Your task to perform on an android device: open app "Spotify: Music and Podcasts" (install if not already installed) Image 0: 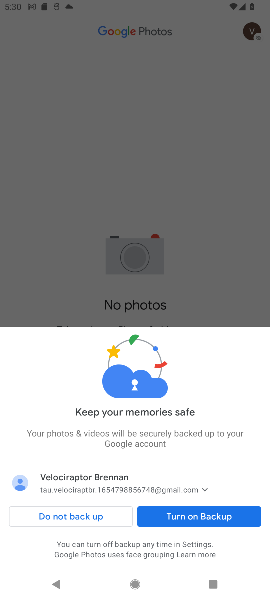
Step 0: press home button
Your task to perform on an android device: open app "Spotify: Music and Podcasts" (install if not already installed) Image 1: 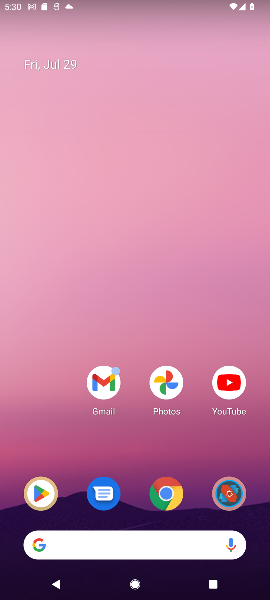
Step 1: drag from (161, 531) to (151, 63)
Your task to perform on an android device: open app "Spotify: Music and Podcasts" (install if not already installed) Image 2: 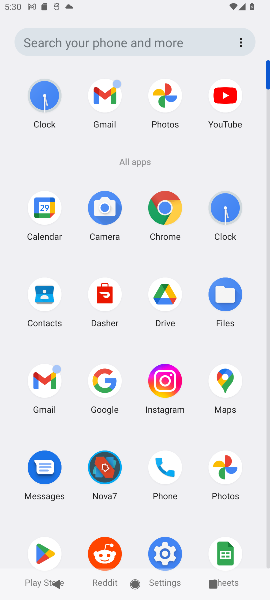
Step 2: click (45, 551)
Your task to perform on an android device: open app "Spotify: Music and Podcasts" (install if not already installed) Image 3: 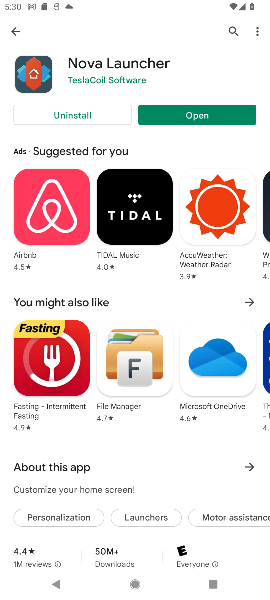
Step 3: click (231, 26)
Your task to perform on an android device: open app "Spotify: Music and Podcasts" (install if not already installed) Image 4: 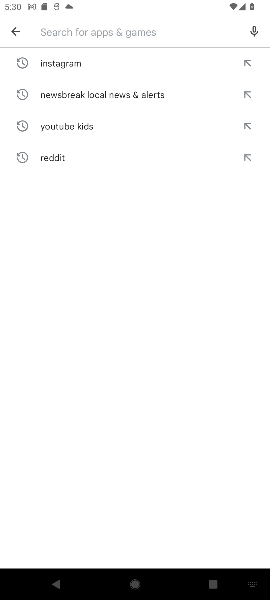
Step 4: type "Spotify: Music and Podcasts"
Your task to perform on an android device: open app "Spotify: Music and Podcasts" (install if not already installed) Image 5: 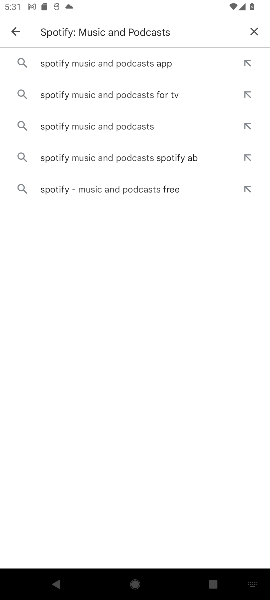
Step 5: click (134, 68)
Your task to perform on an android device: open app "Spotify: Music and Podcasts" (install if not already installed) Image 6: 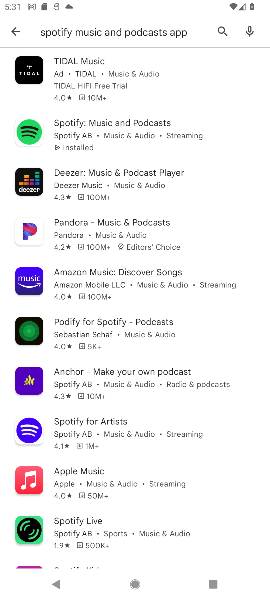
Step 6: click (87, 127)
Your task to perform on an android device: open app "Spotify: Music and Podcasts" (install if not already installed) Image 7: 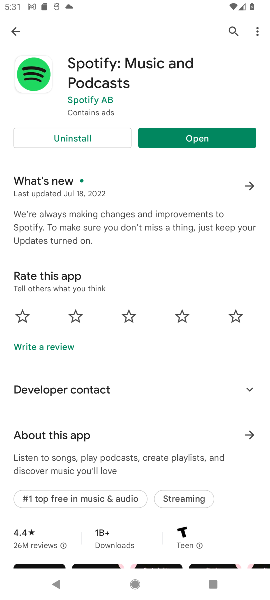
Step 7: click (208, 137)
Your task to perform on an android device: open app "Spotify: Music and Podcasts" (install if not already installed) Image 8: 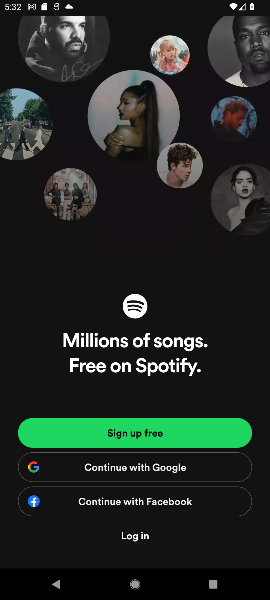
Step 8: task complete